Your task to perform on an android device: see creations saved in the google photos Image 0: 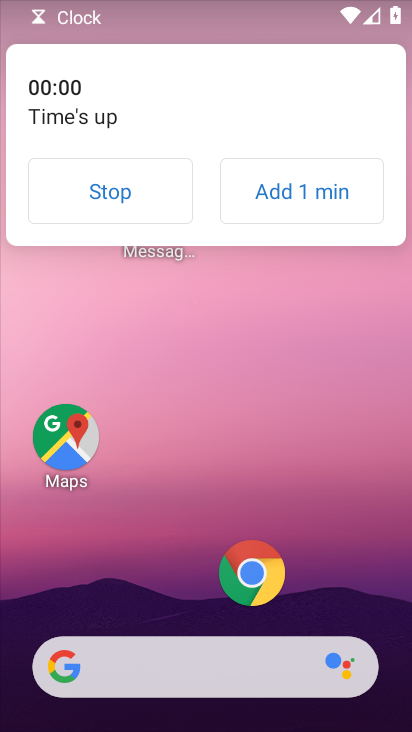
Step 0: click (200, 614)
Your task to perform on an android device: see creations saved in the google photos Image 1: 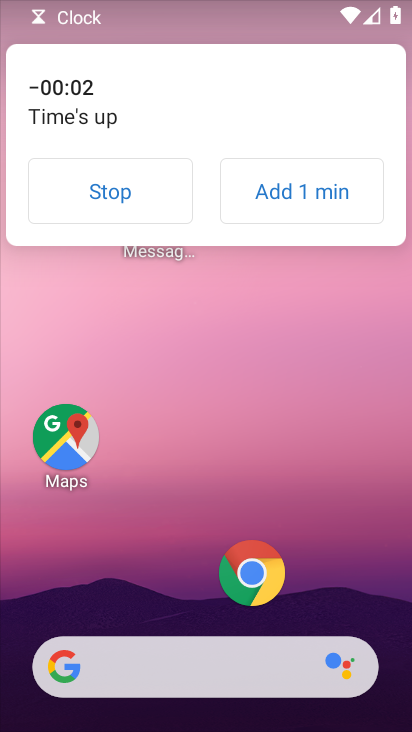
Step 1: click (86, 217)
Your task to perform on an android device: see creations saved in the google photos Image 2: 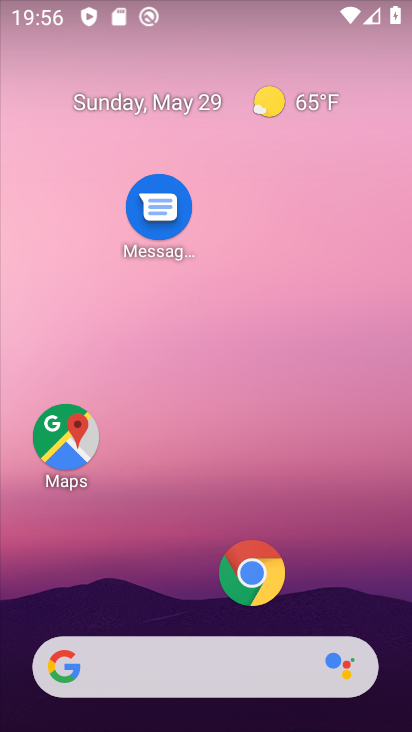
Step 2: drag from (204, 608) to (201, 222)
Your task to perform on an android device: see creations saved in the google photos Image 3: 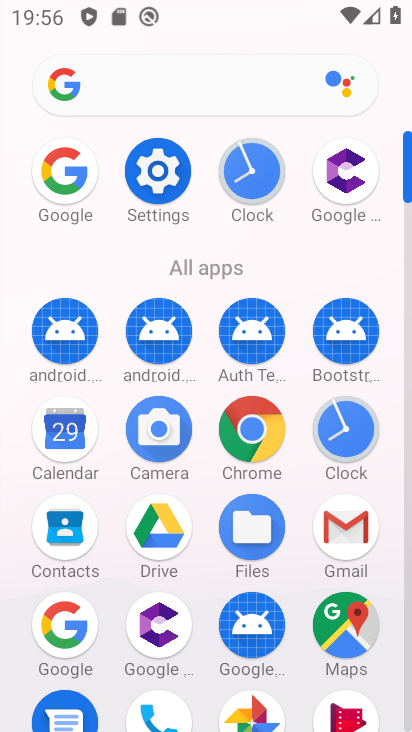
Step 3: drag from (101, 576) to (117, 355)
Your task to perform on an android device: see creations saved in the google photos Image 4: 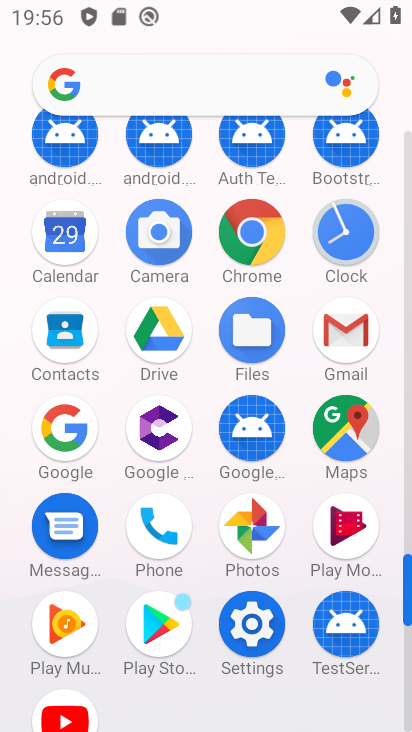
Step 4: click (266, 541)
Your task to perform on an android device: see creations saved in the google photos Image 5: 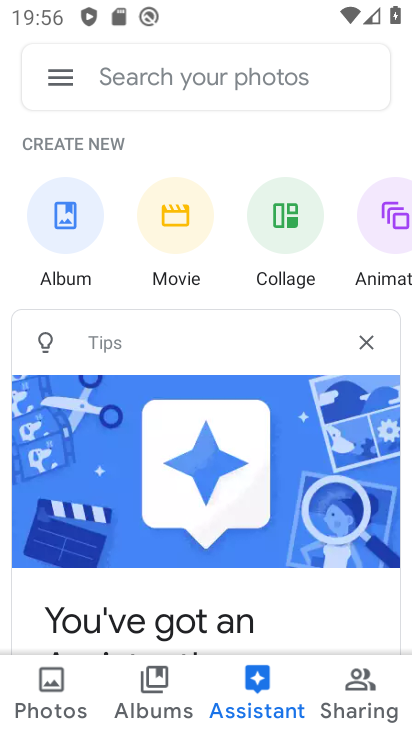
Step 5: click (141, 62)
Your task to perform on an android device: see creations saved in the google photos Image 6: 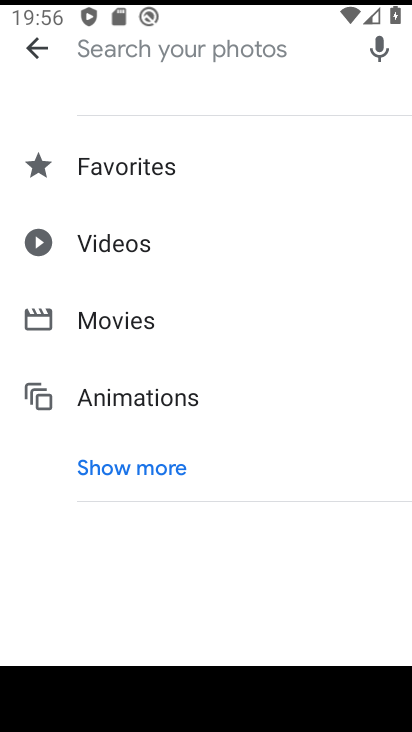
Step 6: click (168, 479)
Your task to perform on an android device: see creations saved in the google photos Image 7: 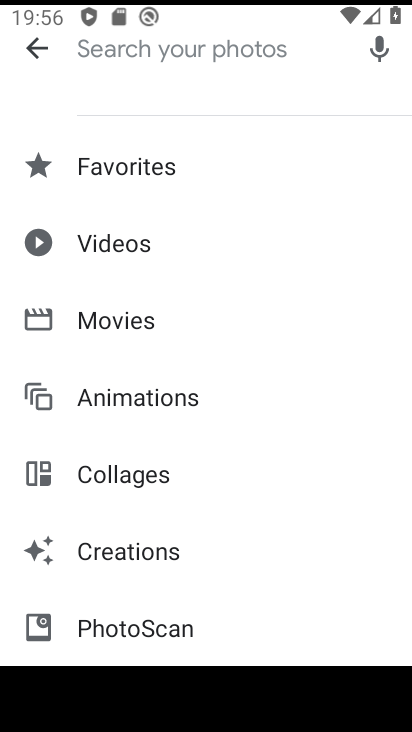
Step 7: click (169, 528)
Your task to perform on an android device: see creations saved in the google photos Image 8: 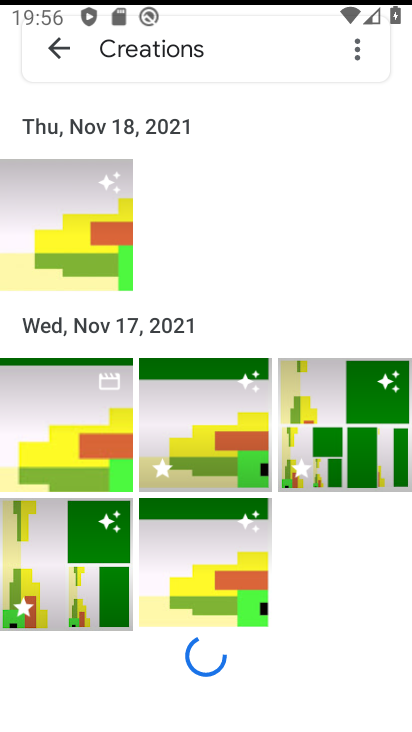
Step 8: task complete